Your task to perform on an android device: Check the weather Image 0: 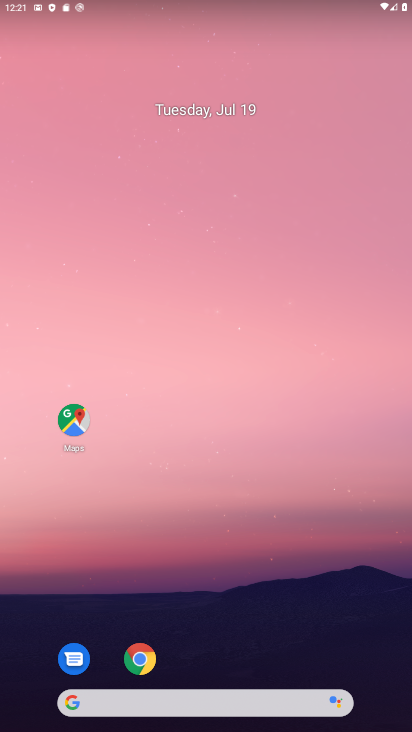
Step 0: drag from (194, 688) to (112, 64)
Your task to perform on an android device: Check the weather Image 1: 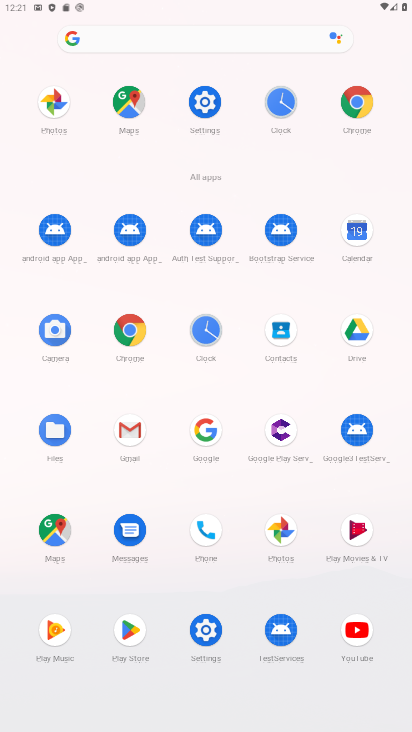
Step 1: click (192, 438)
Your task to perform on an android device: Check the weather Image 2: 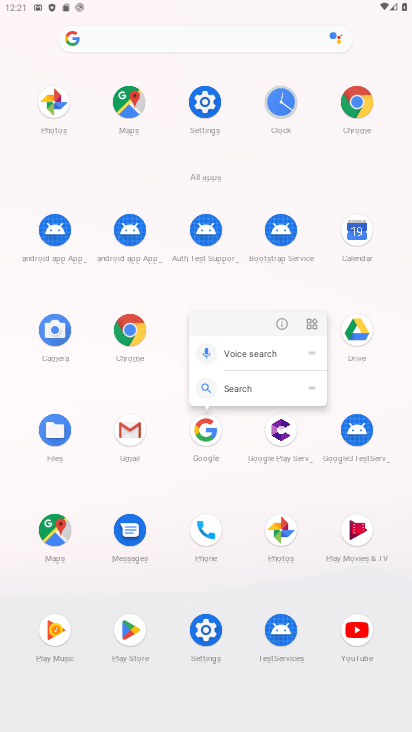
Step 2: click (211, 432)
Your task to perform on an android device: Check the weather Image 3: 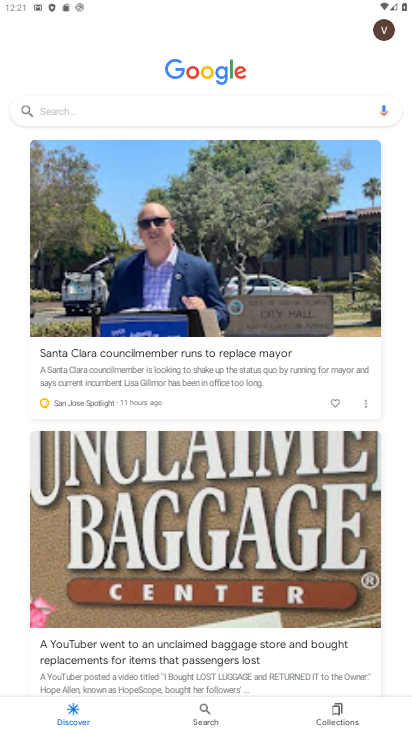
Step 3: click (109, 119)
Your task to perform on an android device: Check the weather Image 4: 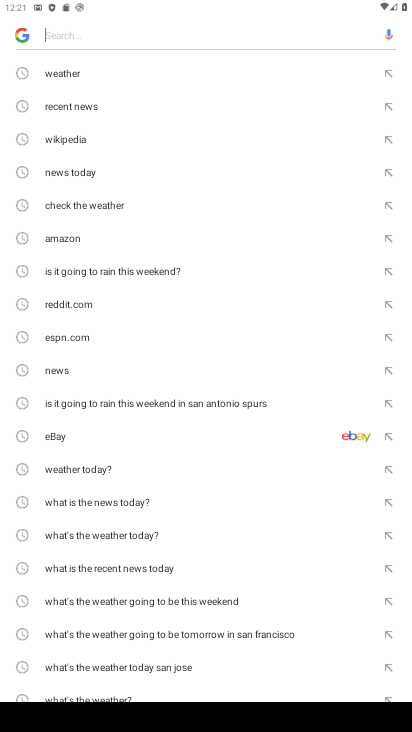
Step 4: click (66, 73)
Your task to perform on an android device: Check the weather Image 5: 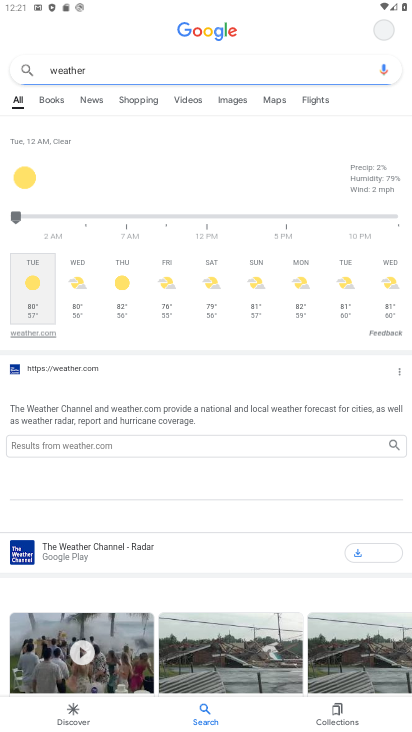
Step 5: task complete